Your task to perform on an android device: Open Maps and search for coffee Image 0: 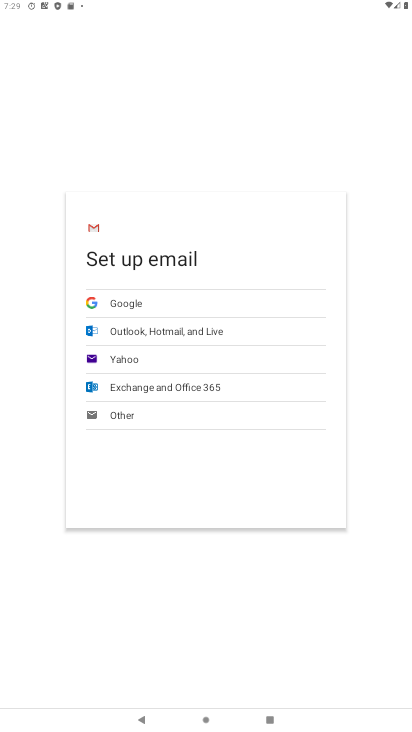
Step 0: press home button
Your task to perform on an android device: Open Maps and search for coffee Image 1: 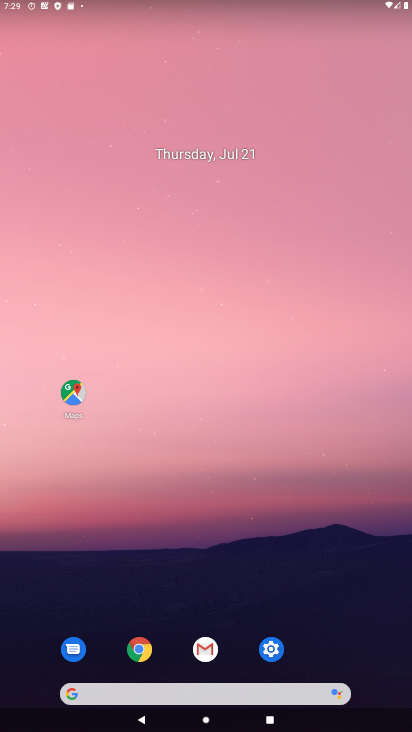
Step 1: click (62, 392)
Your task to perform on an android device: Open Maps and search for coffee Image 2: 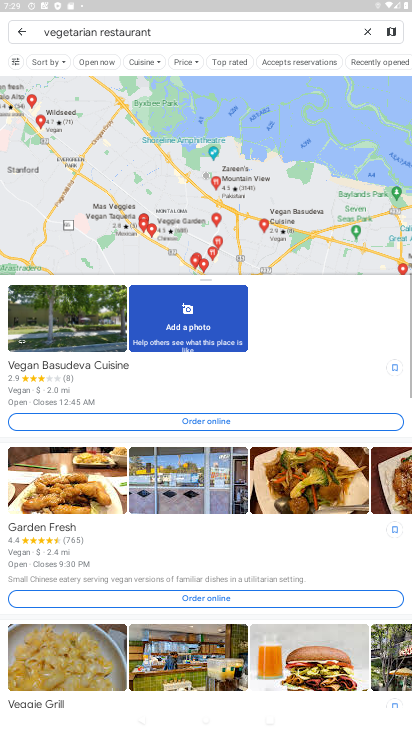
Step 2: click (364, 29)
Your task to perform on an android device: Open Maps and search for coffee Image 3: 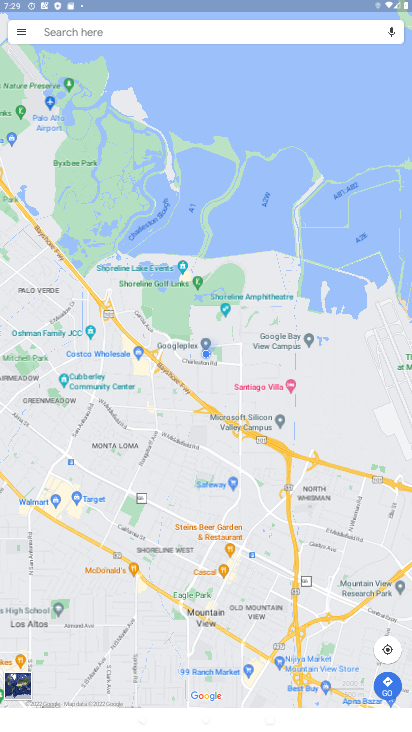
Step 3: click (121, 35)
Your task to perform on an android device: Open Maps and search for coffee Image 4: 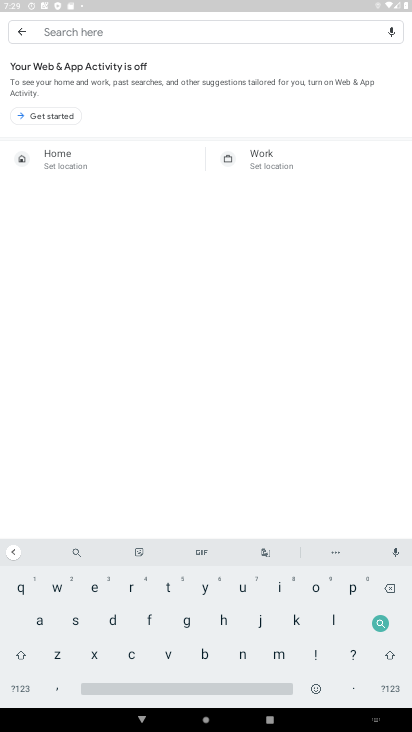
Step 4: click (129, 658)
Your task to perform on an android device: Open Maps and search for coffee Image 5: 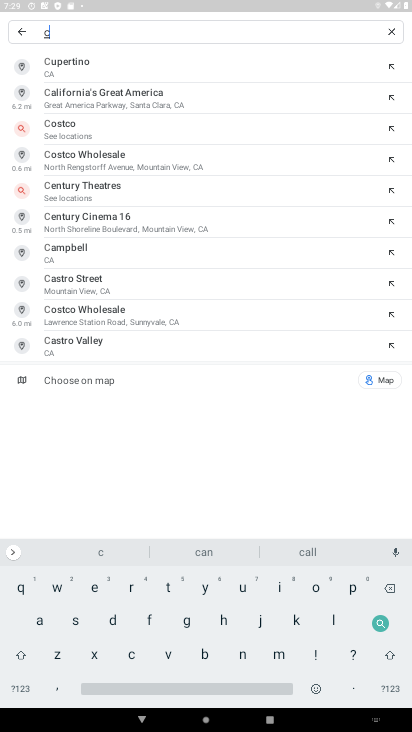
Step 5: click (318, 591)
Your task to perform on an android device: Open Maps and search for coffee Image 6: 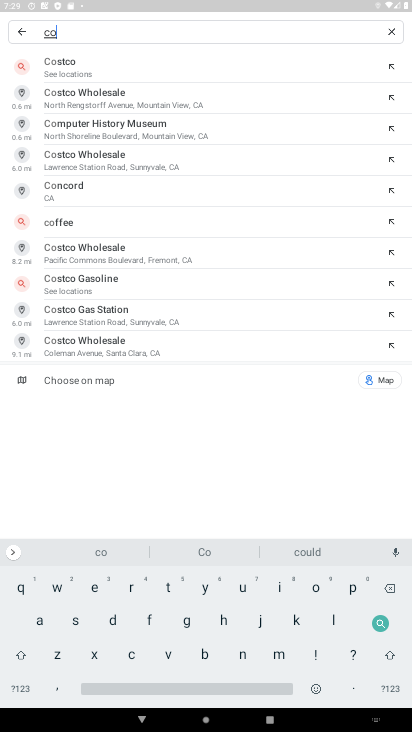
Step 6: click (149, 617)
Your task to perform on an android device: Open Maps and search for coffee Image 7: 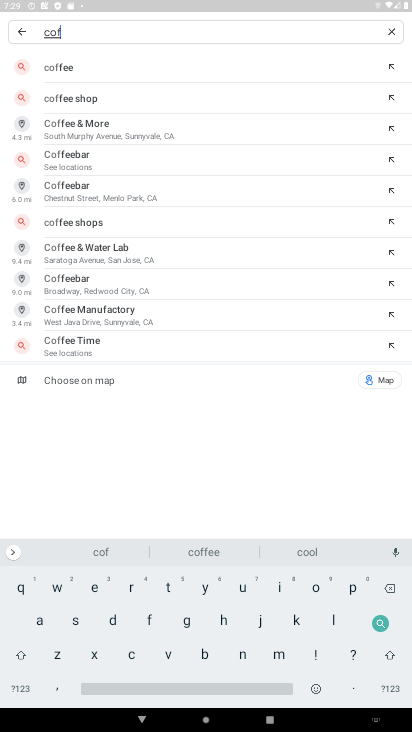
Step 7: click (74, 66)
Your task to perform on an android device: Open Maps and search for coffee Image 8: 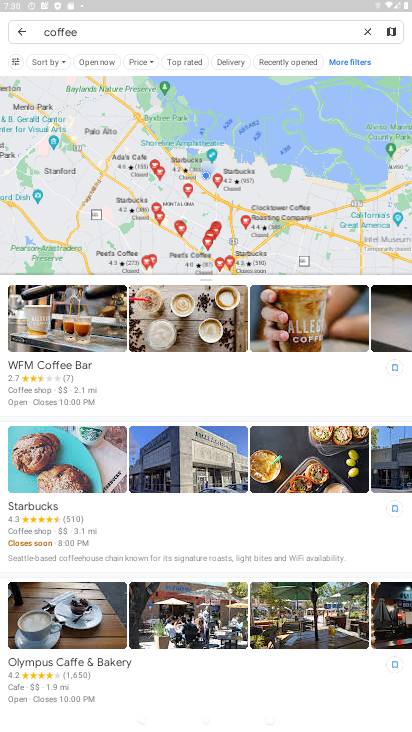
Step 8: task complete